Your task to perform on an android device: turn on data saver in the chrome app Image 0: 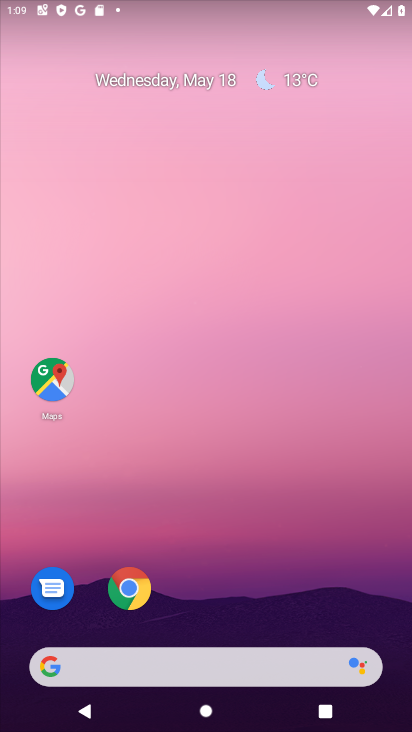
Step 0: drag from (182, 532) to (117, 31)
Your task to perform on an android device: turn on data saver in the chrome app Image 1: 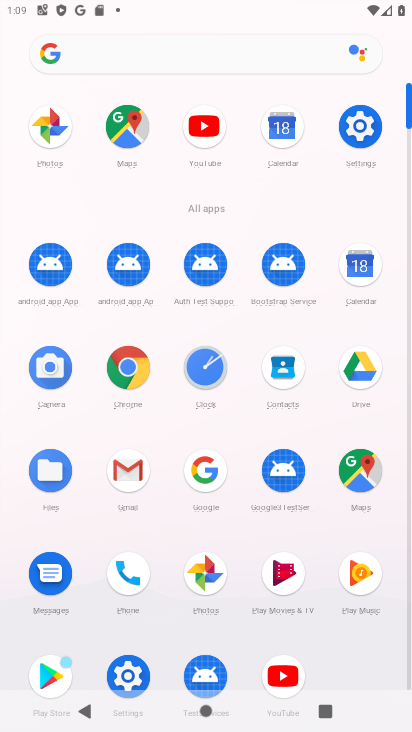
Step 1: click (123, 357)
Your task to perform on an android device: turn on data saver in the chrome app Image 2: 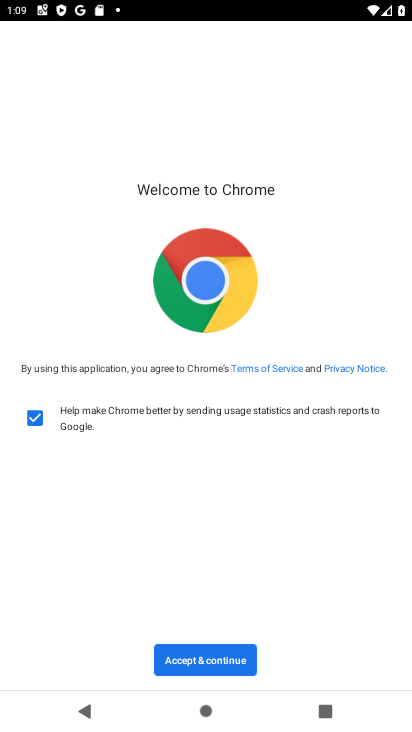
Step 2: click (199, 666)
Your task to perform on an android device: turn on data saver in the chrome app Image 3: 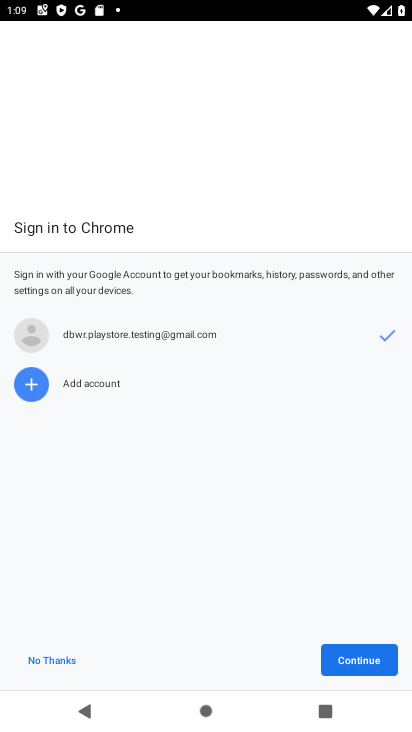
Step 3: click (58, 660)
Your task to perform on an android device: turn on data saver in the chrome app Image 4: 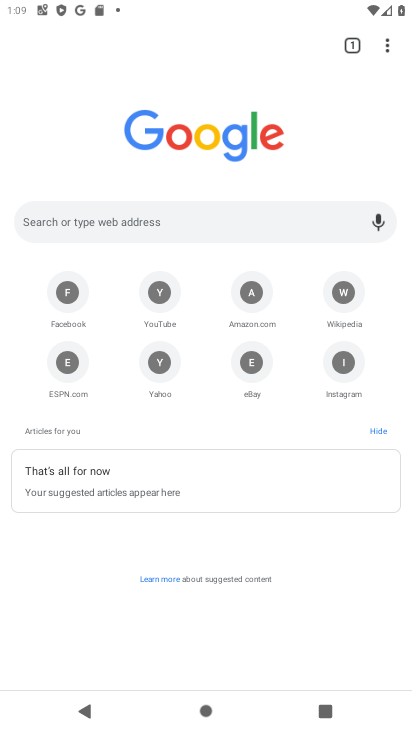
Step 4: click (385, 54)
Your task to perform on an android device: turn on data saver in the chrome app Image 5: 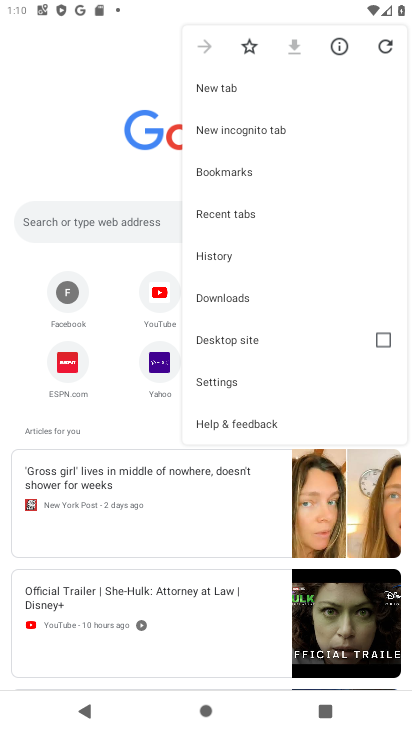
Step 5: drag from (245, 372) to (275, 81)
Your task to perform on an android device: turn on data saver in the chrome app Image 6: 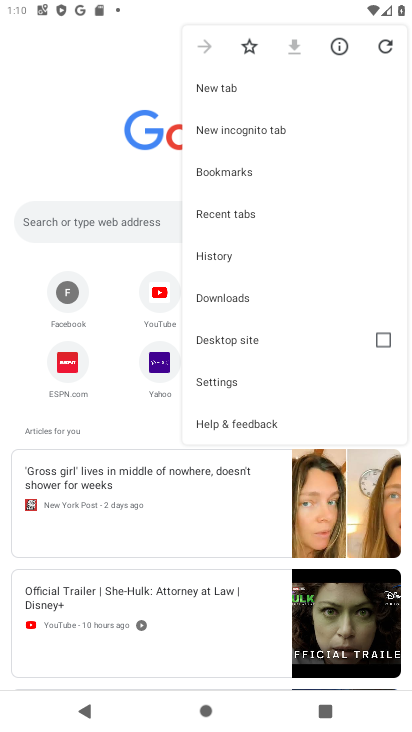
Step 6: click (221, 388)
Your task to perform on an android device: turn on data saver in the chrome app Image 7: 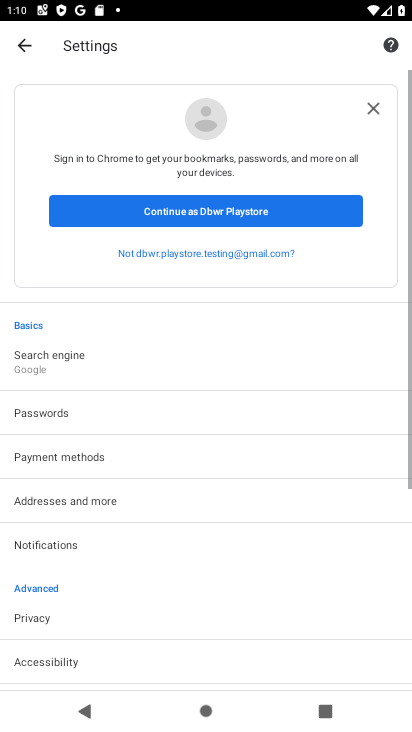
Step 7: drag from (143, 574) to (185, 115)
Your task to perform on an android device: turn on data saver in the chrome app Image 8: 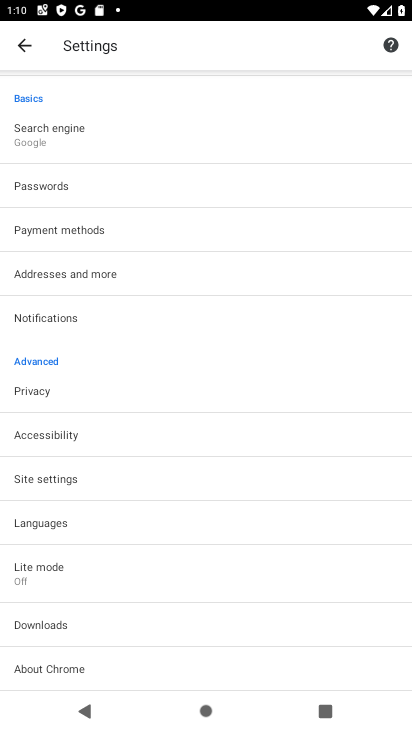
Step 8: click (75, 580)
Your task to perform on an android device: turn on data saver in the chrome app Image 9: 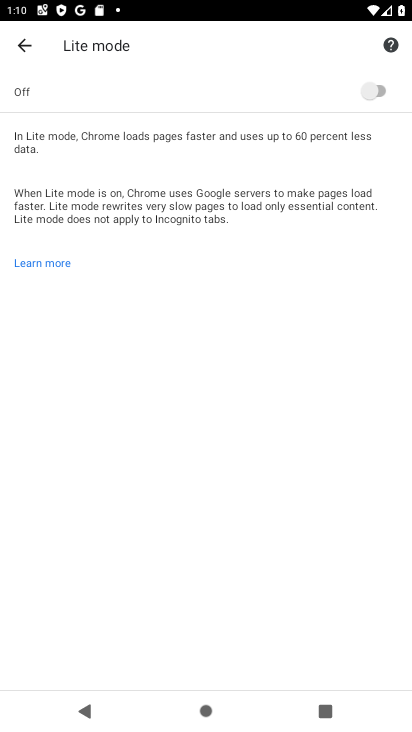
Step 9: click (370, 91)
Your task to perform on an android device: turn on data saver in the chrome app Image 10: 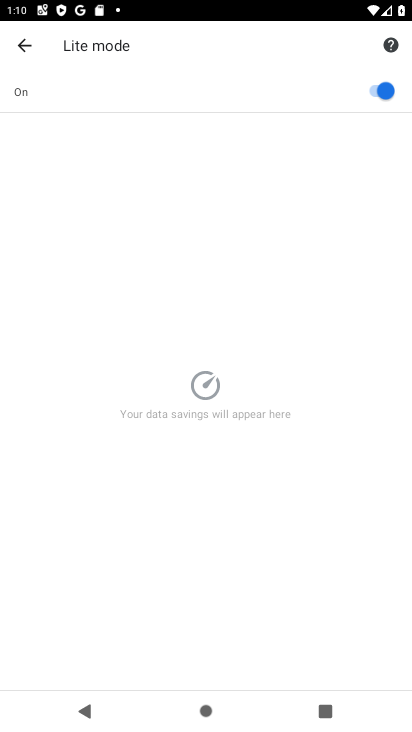
Step 10: task complete